Your task to perform on an android device: What's the weather? Image 0: 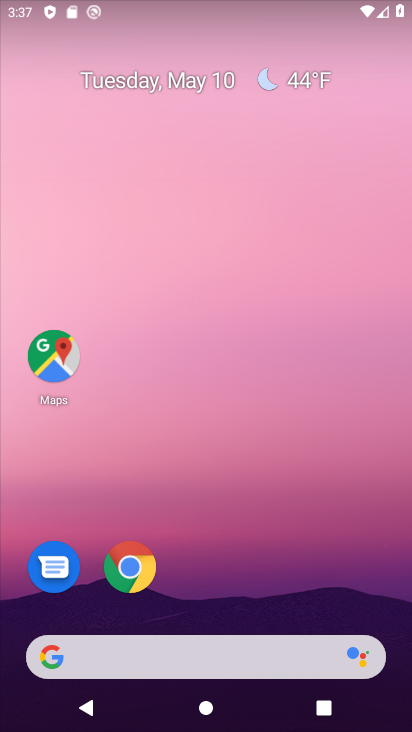
Step 0: drag from (219, 574) to (230, 7)
Your task to perform on an android device: What's the weather? Image 1: 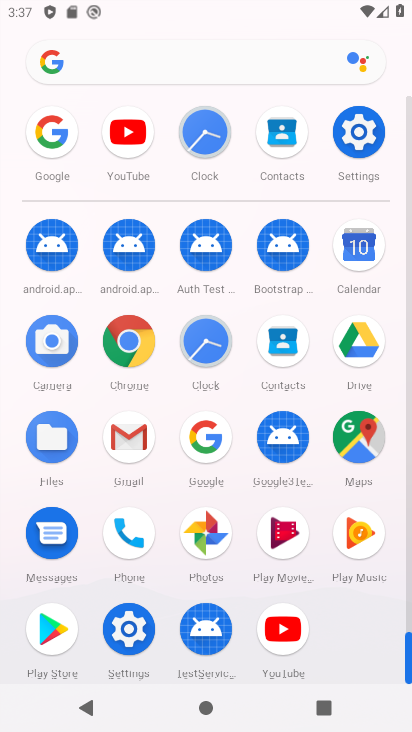
Step 1: click (201, 435)
Your task to perform on an android device: What's the weather? Image 2: 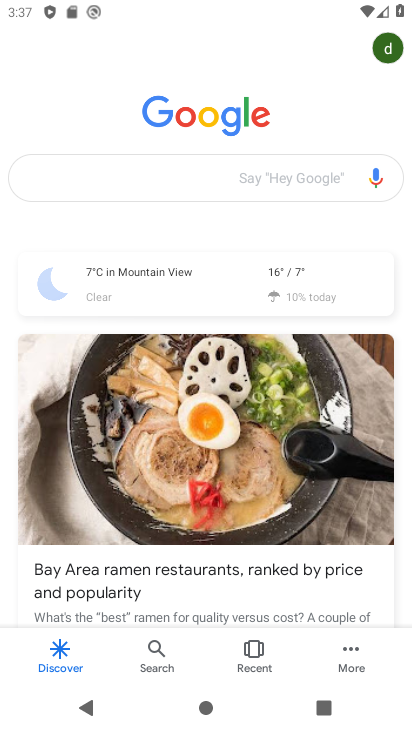
Step 2: click (224, 179)
Your task to perform on an android device: What's the weather? Image 3: 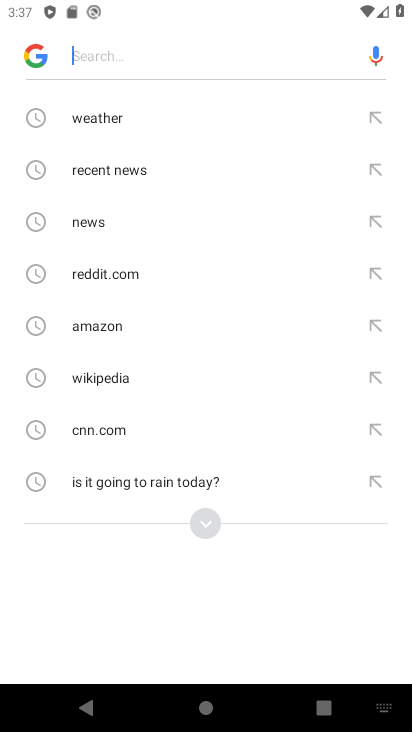
Step 3: click (107, 120)
Your task to perform on an android device: What's the weather? Image 4: 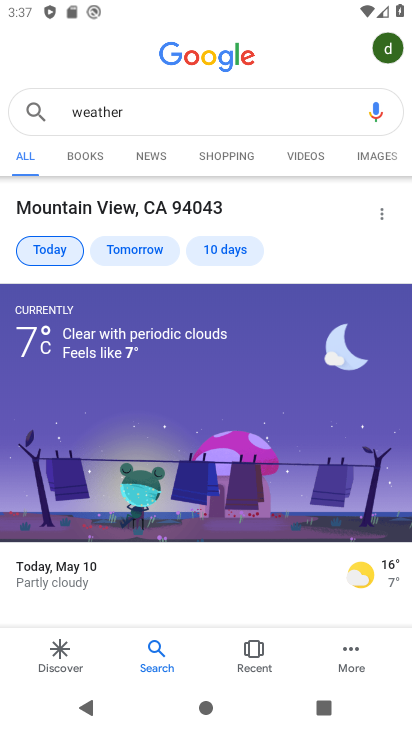
Step 4: task complete